Your task to perform on an android device: Open the calendar and show me this week's events? Image 0: 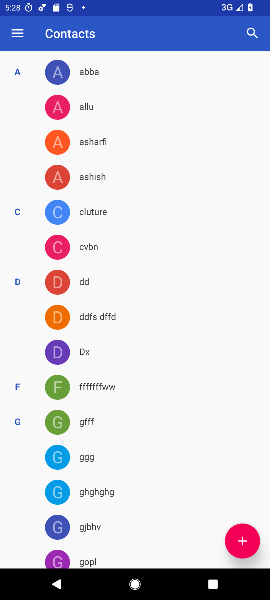
Step 0: press home button
Your task to perform on an android device: Open the calendar and show me this week's events? Image 1: 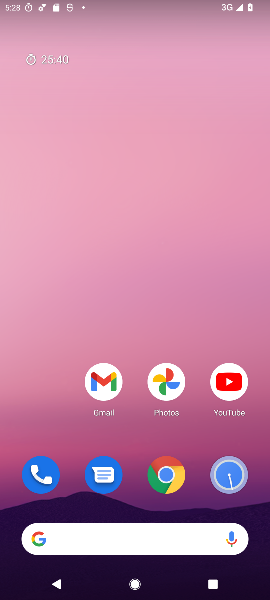
Step 1: drag from (62, 443) to (55, 153)
Your task to perform on an android device: Open the calendar and show me this week's events? Image 2: 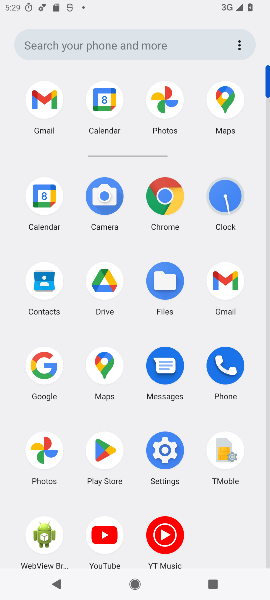
Step 2: click (42, 199)
Your task to perform on an android device: Open the calendar and show me this week's events? Image 3: 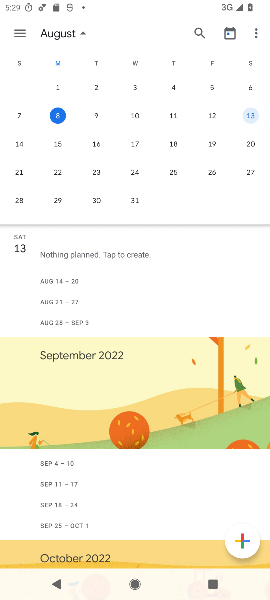
Step 3: click (59, 111)
Your task to perform on an android device: Open the calendar and show me this week's events? Image 4: 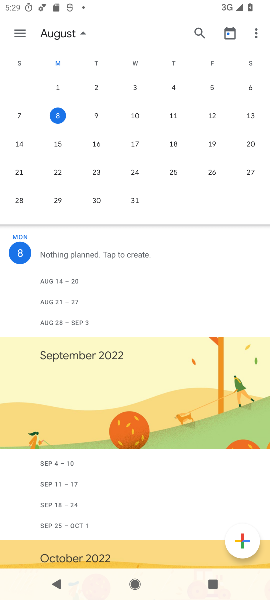
Step 4: task complete